Your task to perform on an android device: check storage Image 0: 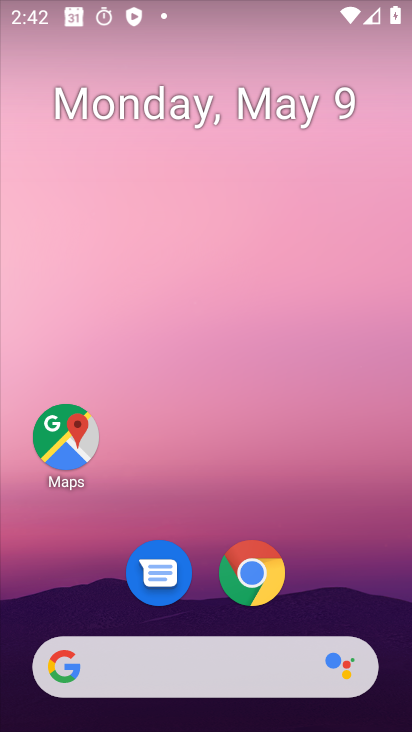
Step 0: drag from (227, 253) to (155, 23)
Your task to perform on an android device: check storage Image 1: 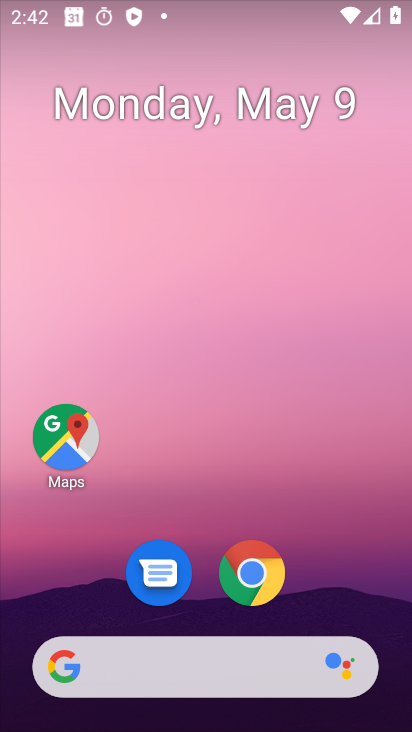
Step 1: drag from (74, 161) to (19, 17)
Your task to perform on an android device: check storage Image 2: 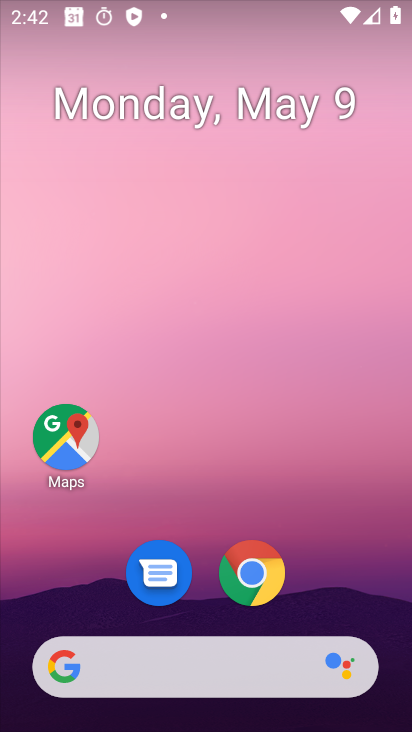
Step 2: click (90, 63)
Your task to perform on an android device: check storage Image 3: 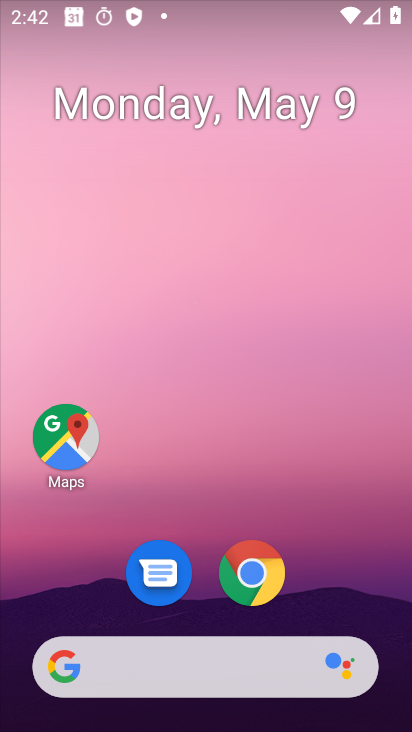
Step 3: drag from (192, 428) to (104, 109)
Your task to perform on an android device: check storage Image 4: 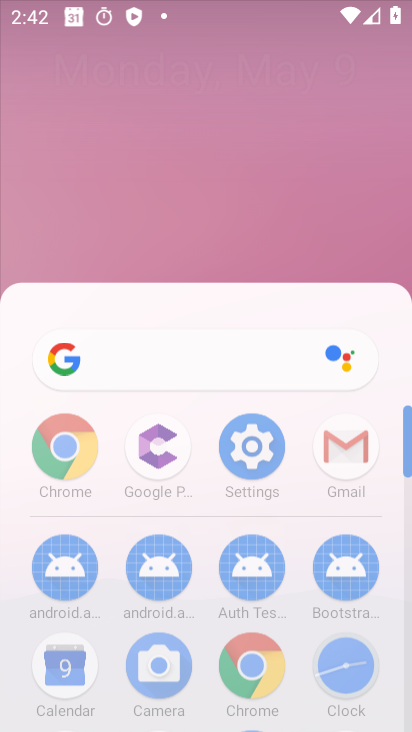
Step 4: drag from (162, 23) to (98, 0)
Your task to perform on an android device: check storage Image 5: 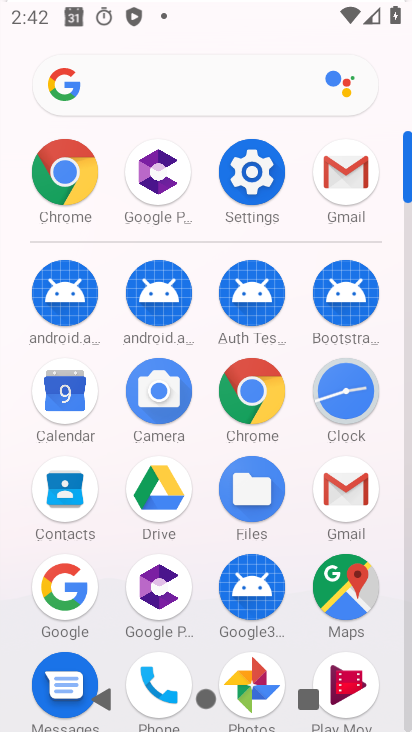
Step 5: drag from (215, 133) to (184, 58)
Your task to perform on an android device: check storage Image 6: 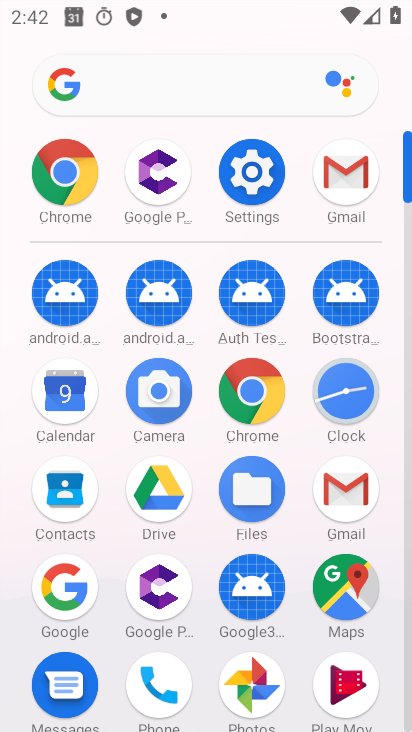
Step 6: click (248, 178)
Your task to perform on an android device: check storage Image 7: 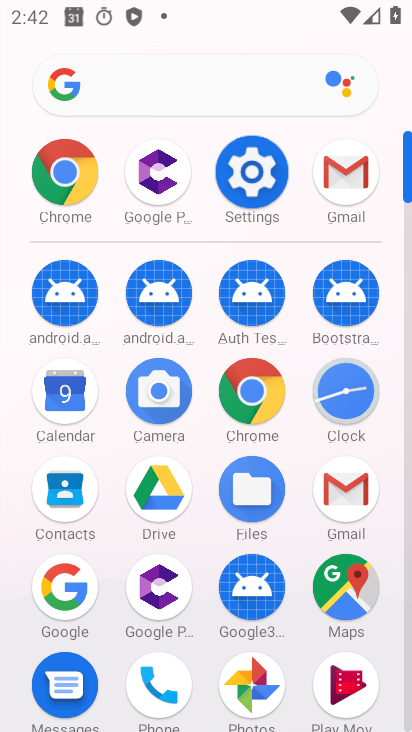
Step 7: click (249, 177)
Your task to perform on an android device: check storage Image 8: 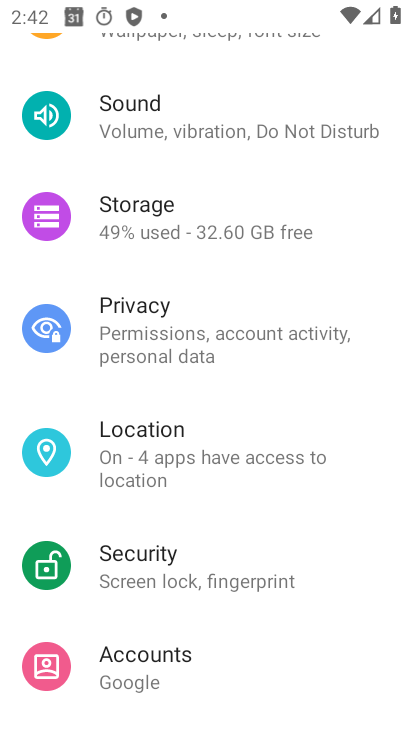
Step 8: click (133, 222)
Your task to perform on an android device: check storage Image 9: 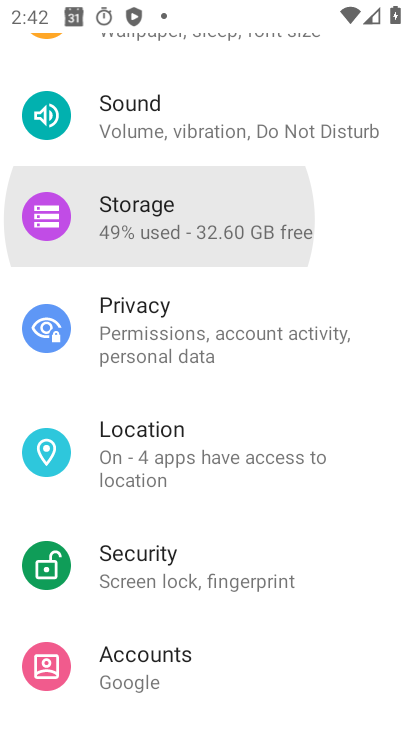
Step 9: click (133, 222)
Your task to perform on an android device: check storage Image 10: 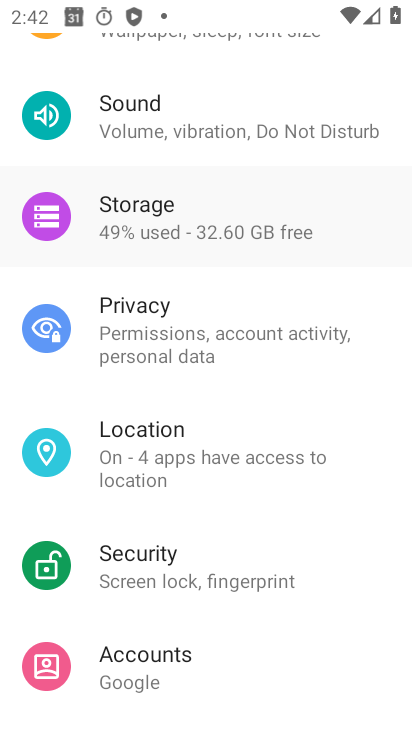
Step 10: click (133, 222)
Your task to perform on an android device: check storage Image 11: 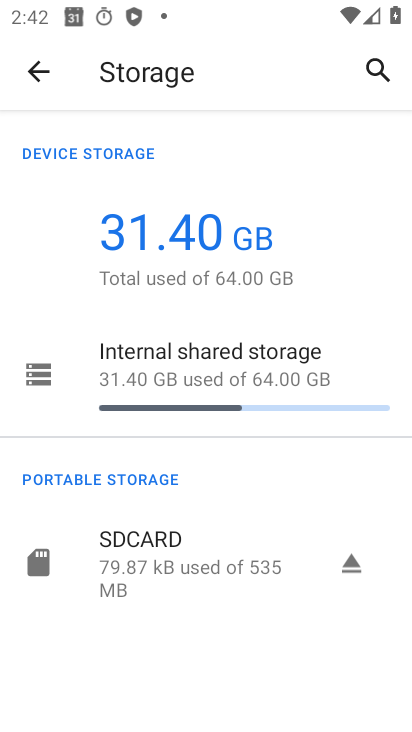
Step 11: task complete